Your task to perform on an android device: What's the weather today? Image 0: 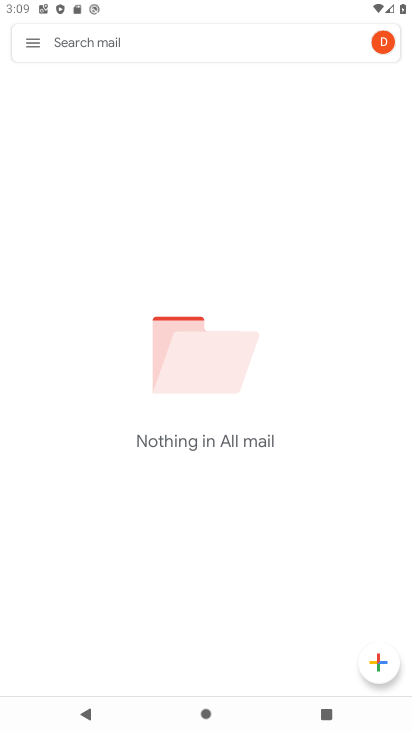
Step 0: press back button
Your task to perform on an android device: What's the weather today? Image 1: 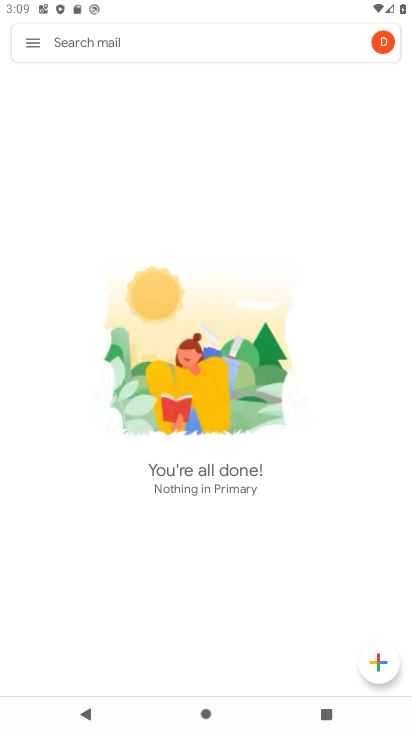
Step 1: press back button
Your task to perform on an android device: What's the weather today? Image 2: 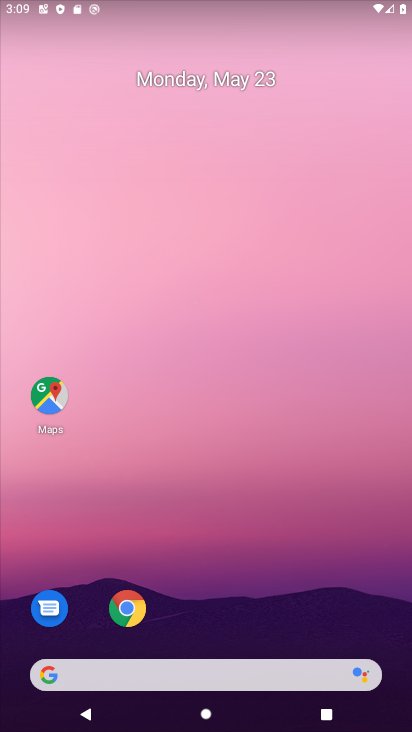
Step 2: drag from (236, 617) to (159, 123)
Your task to perform on an android device: What's the weather today? Image 3: 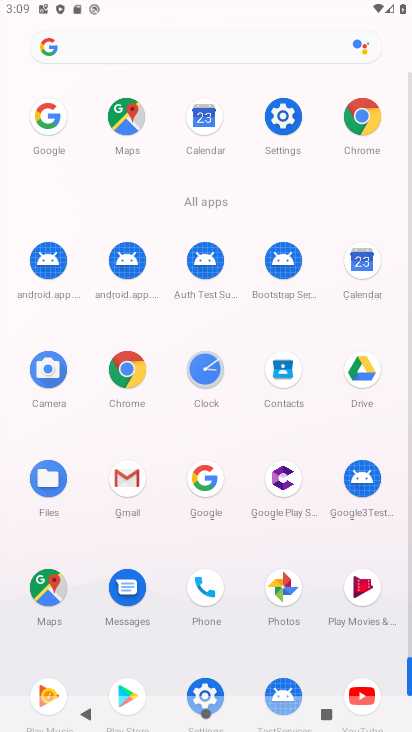
Step 3: click (203, 475)
Your task to perform on an android device: What's the weather today? Image 4: 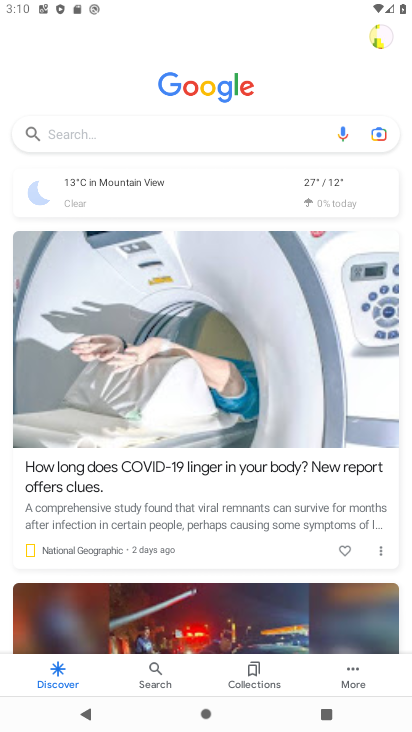
Step 4: click (210, 188)
Your task to perform on an android device: What's the weather today? Image 5: 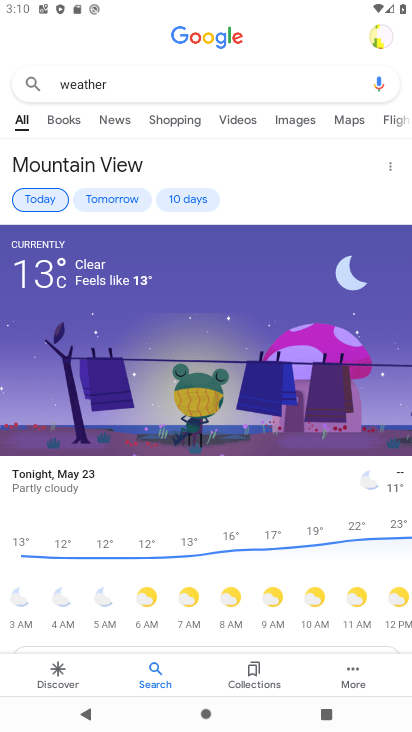
Step 5: task complete